Your task to perform on an android device: Clear all items from cart on newegg.com. Add razer nari to the cart on newegg.com, then select checkout. Image 0: 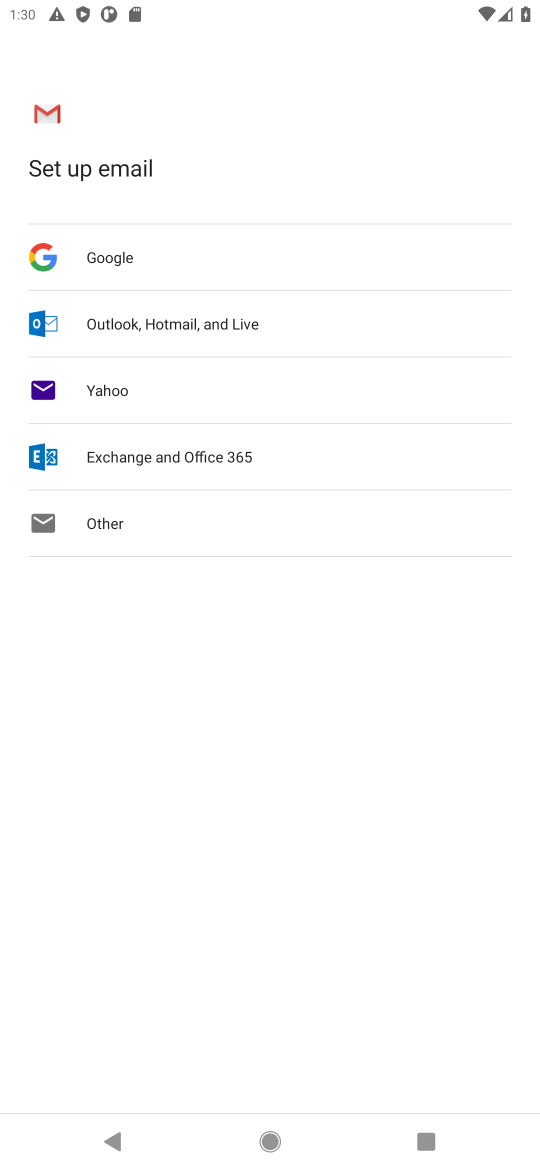
Step 0: press home button
Your task to perform on an android device: Clear all items from cart on newegg.com. Add razer nari to the cart on newegg.com, then select checkout. Image 1: 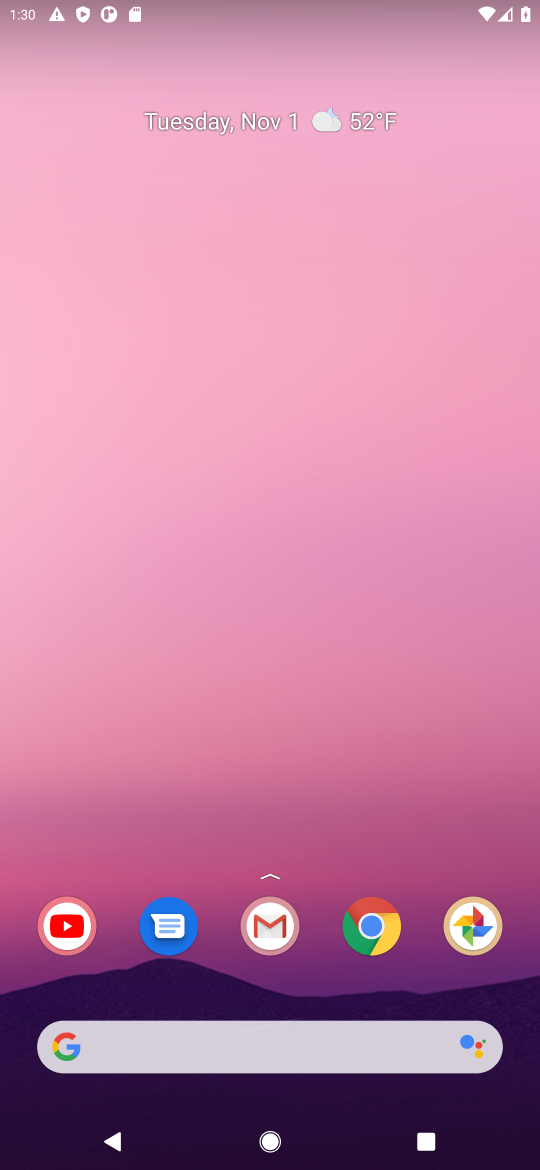
Step 1: click (378, 930)
Your task to perform on an android device: Clear all items from cart on newegg.com. Add razer nari to the cart on newegg.com, then select checkout. Image 2: 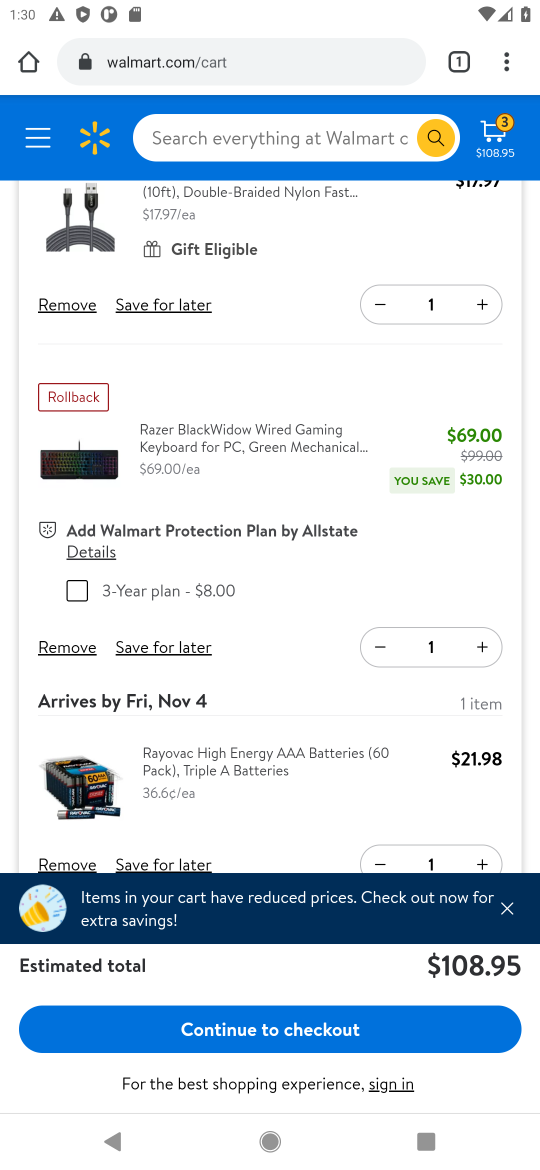
Step 2: click (141, 65)
Your task to perform on an android device: Clear all items from cart on newegg.com. Add razer nari to the cart on newegg.com, then select checkout. Image 3: 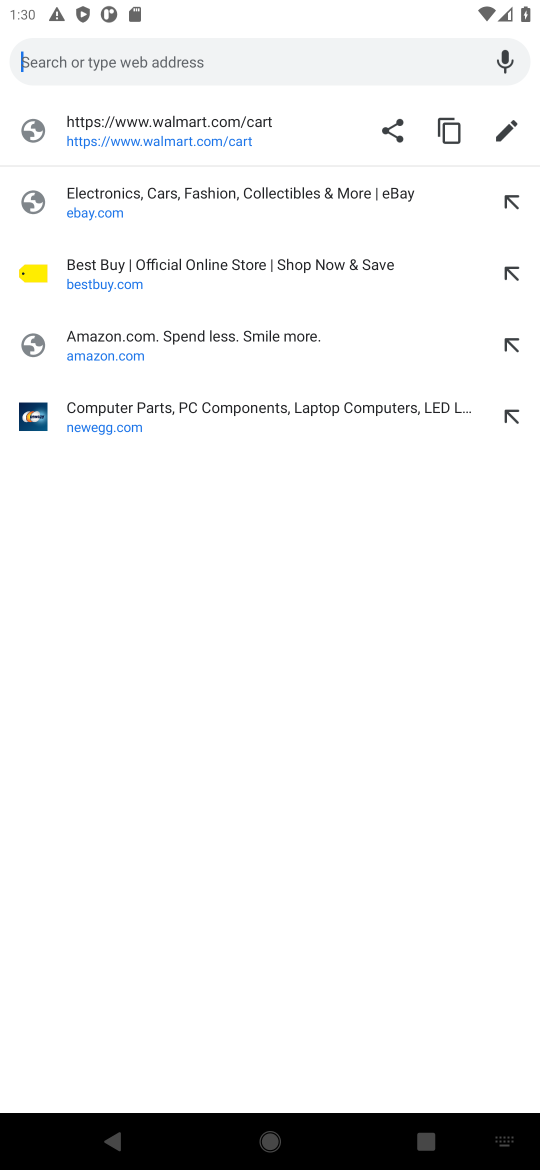
Step 3: type "newegg.com"
Your task to perform on an android device: Clear all items from cart on newegg.com. Add razer nari to the cart on newegg.com, then select checkout. Image 4: 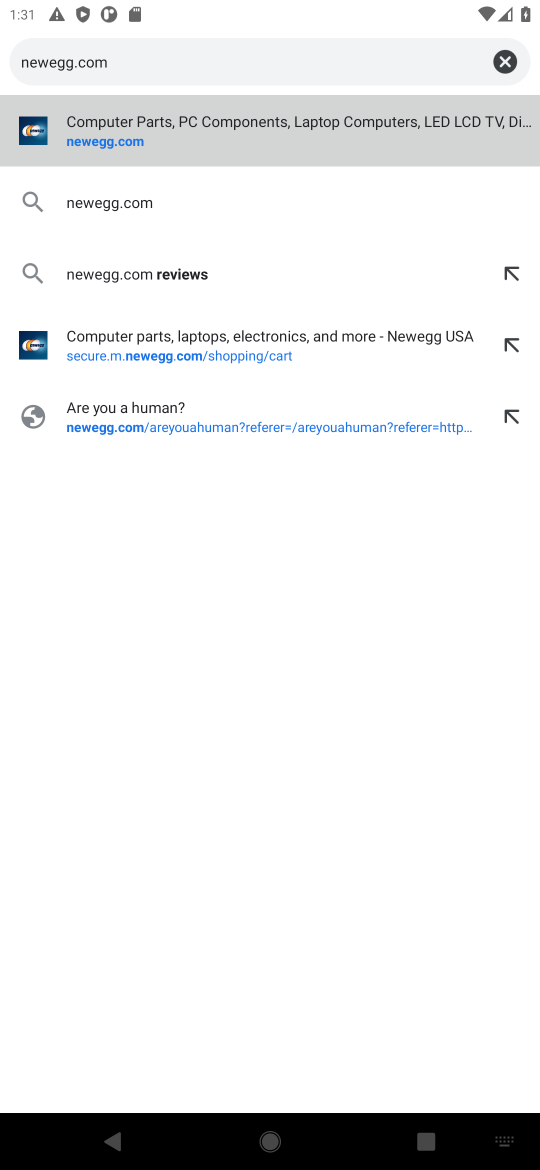
Step 4: click (212, 143)
Your task to perform on an android device: Clear all items from cart on newegg.com. Add razer nari to the cart on newegg.com, then select checkout. Image 5: 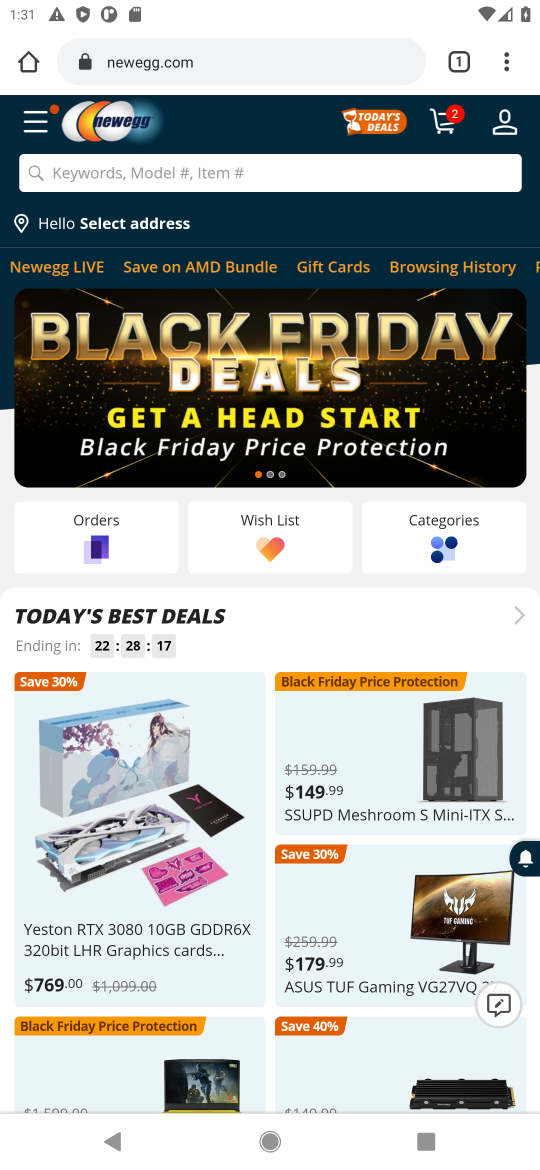
Step 5: click (456, 126)
Your task to perform on an android device: Clear all items from cart on newegg.com. Add razer nari to the cart on newegg.com, then select checkout. Image 6: 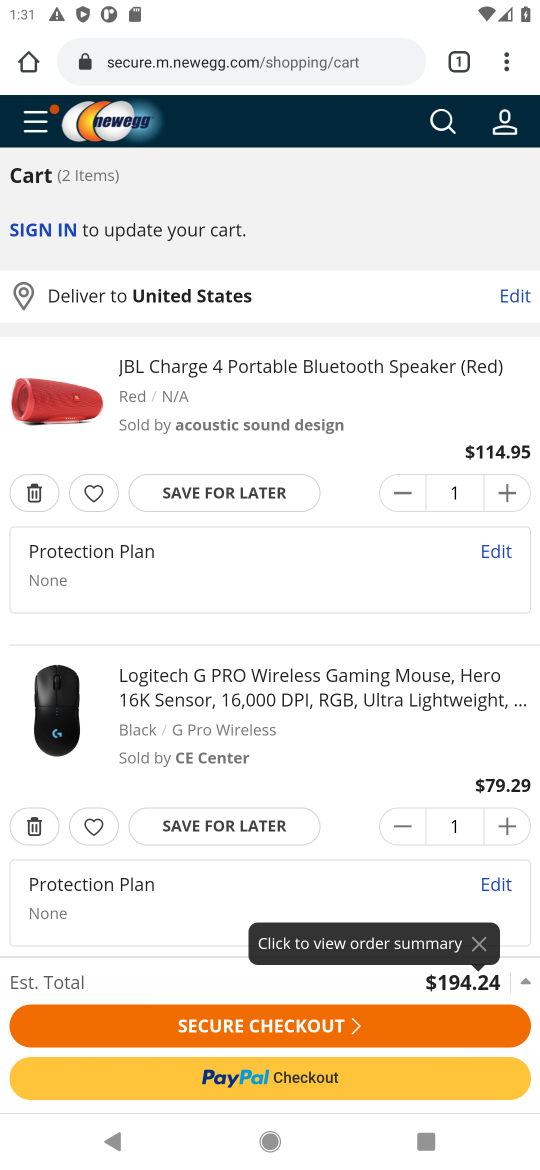
Step 6: click (410, 497)
Your task to perform on an android device: Clear all items from cart on newegg.com. Add razer nari to the cart on newegg.com, then select checkout. Image 7: 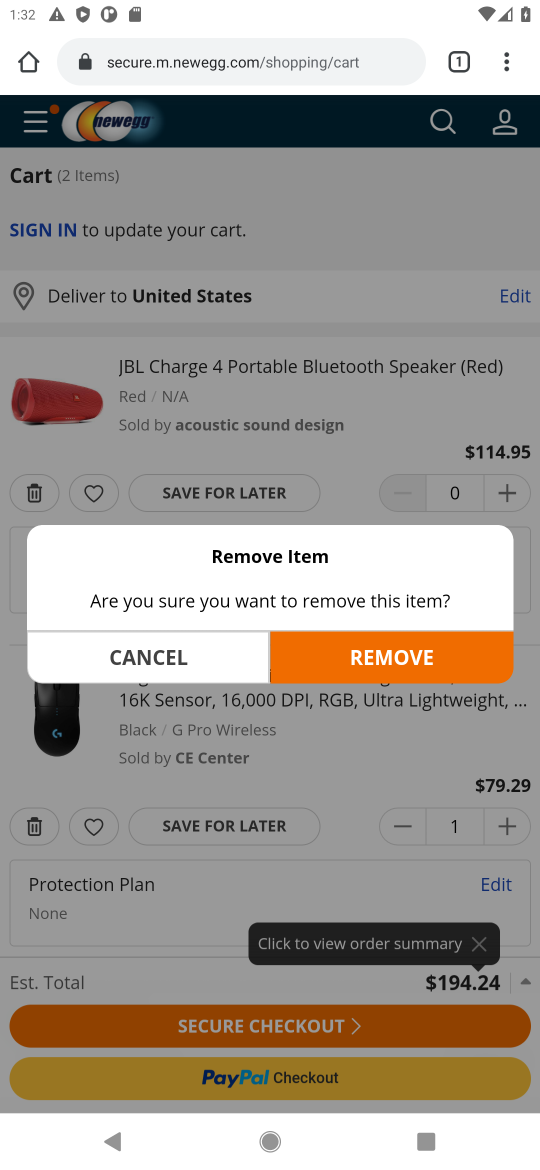
Step 7: click (400, 677)
Your task to perform on an android device: Clear all items from cart on newegg.com. Add razer nari to the cart on newegg.com, then select checkout. Image 8: 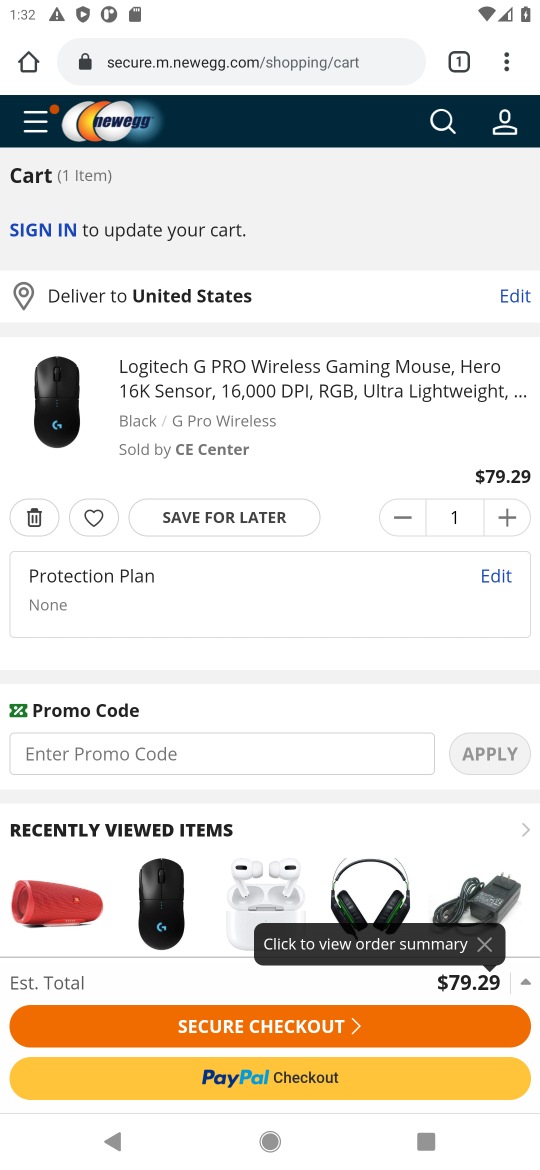
Step 8: click (392, 521)
Your task to perform on an android device: Clear all items from cart on newegg.com. Add razer nari to the cart on newegg.com, then select checkout. Image 9: 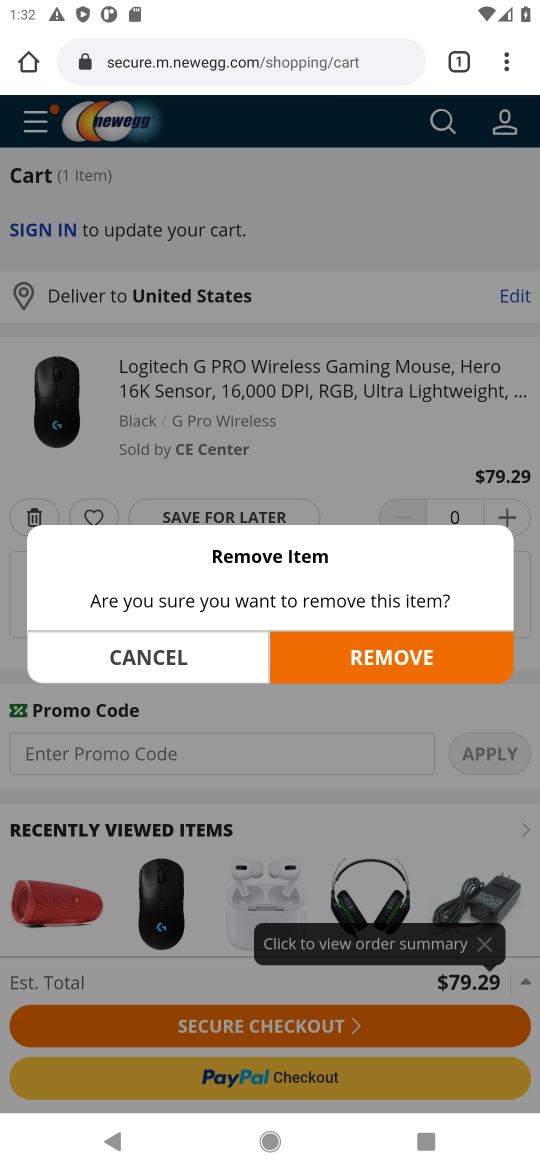
Step 9: click (430, 665)
Your task to perform on an android device: Clear all items from cart on newegg.com. Add razer nari to the cart on newegg.com, then select checkout. Image 10: 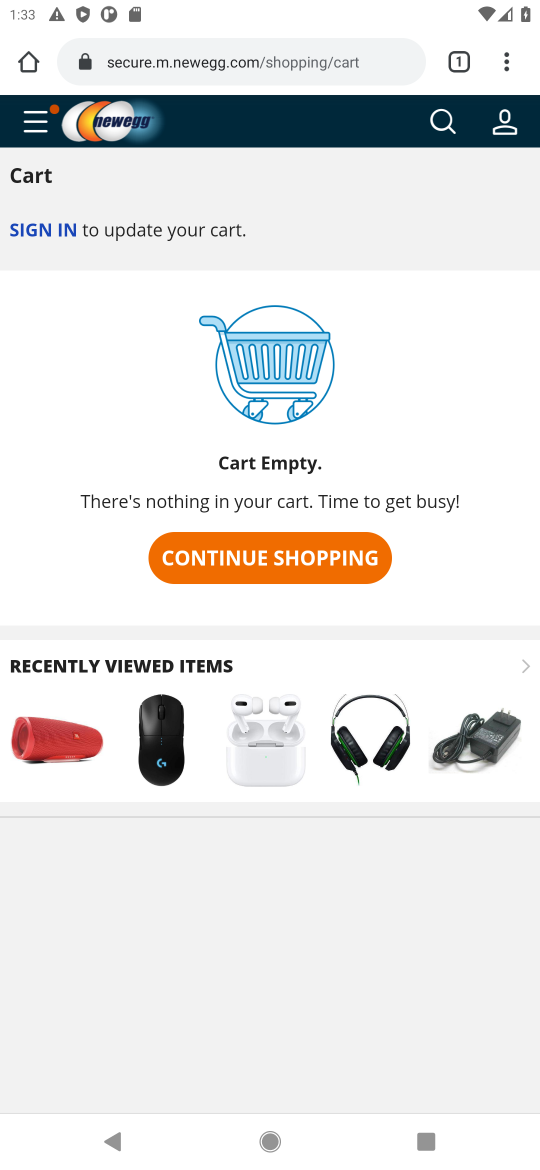
Step 10: click (435, 127)
Your task to perform on an android device: Clear all items from cart on newegg.com. Add razer nari to the cart on newegg.com, then select checkout. Image 11: 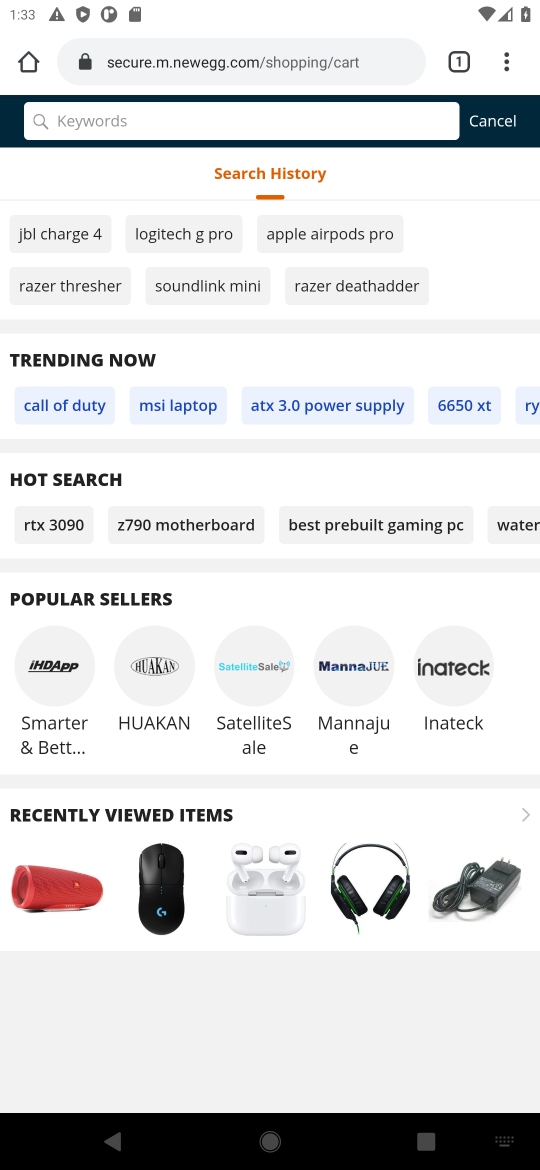
Step 11: type "razer nari"
Your task to perform on an android device: Clear all items from cart on newegg.com. Add razer nari to the cart on newegg.com, then select checkout. Image 12: 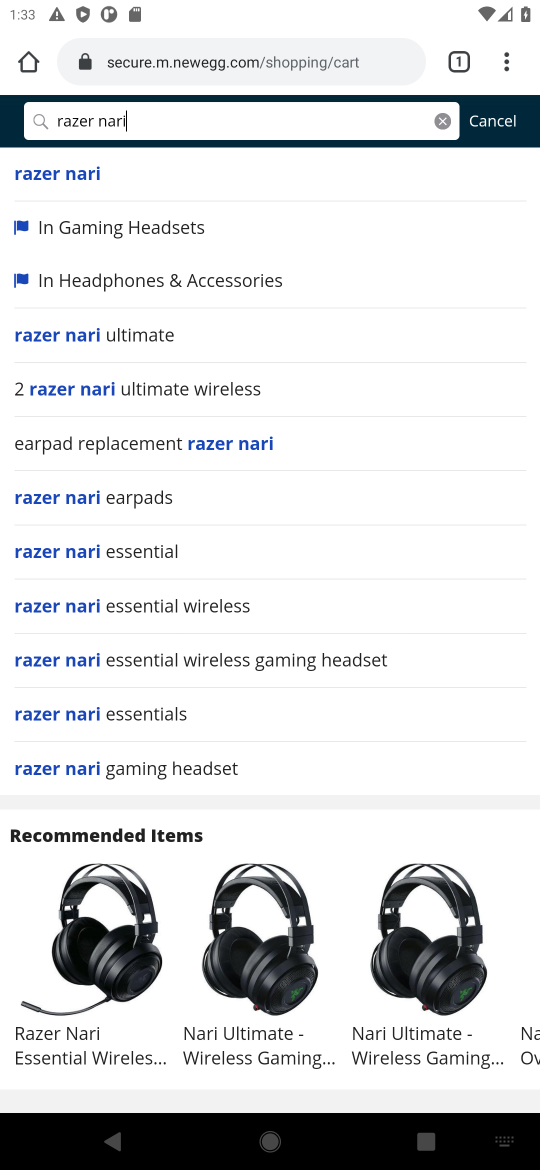
Step 12: press enter
Your task to perform on an android device: Clear all items from cart on newegg.com. Add razer nari to the cart on newegg.com, then select checkout. Image 13: 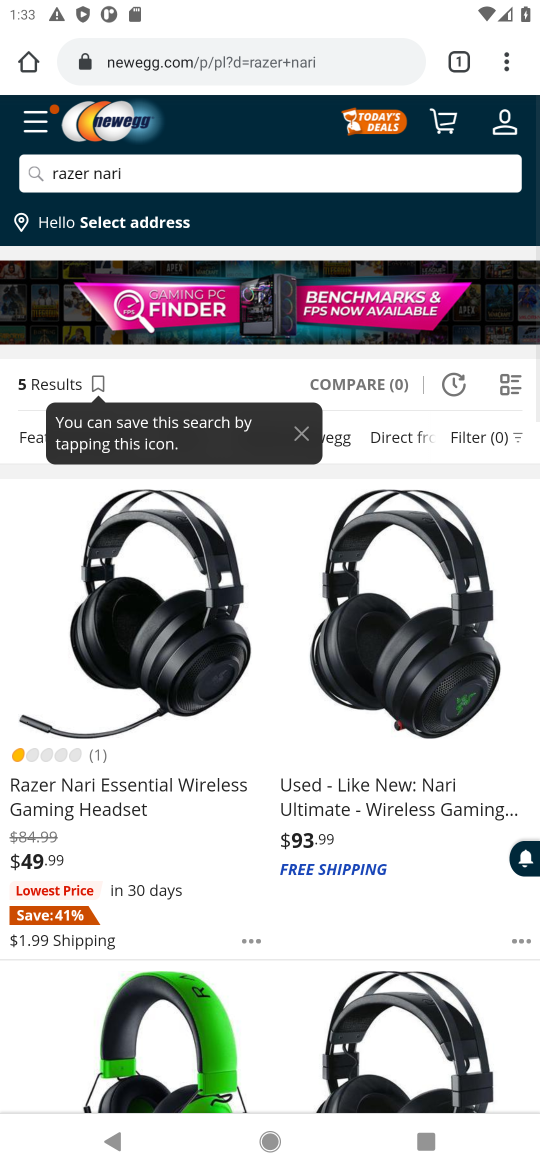
Step 13: click (145, 606)
Your task to perform on an android device: Clear all items from cart on newegg.com. Add razer nari to the cart on newegg.com, then select checkout. Image 14: 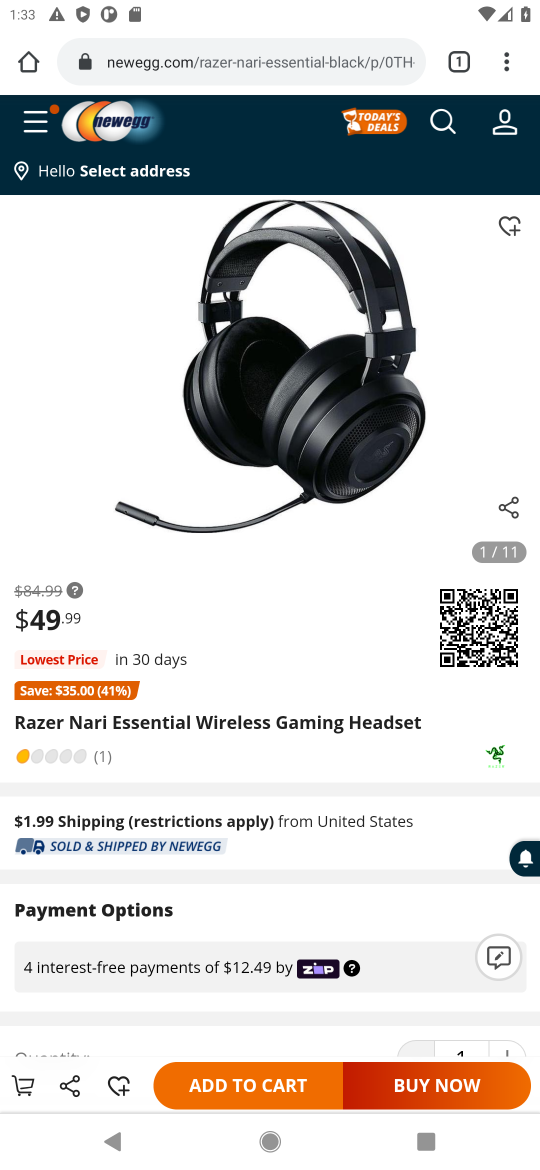
Step 14: click (222, 1082)
Your task to perform on an android device: Clear all items from cart on newegg.com. Add razer nari to the cart on newegg.com, then select checkout. Image 15: 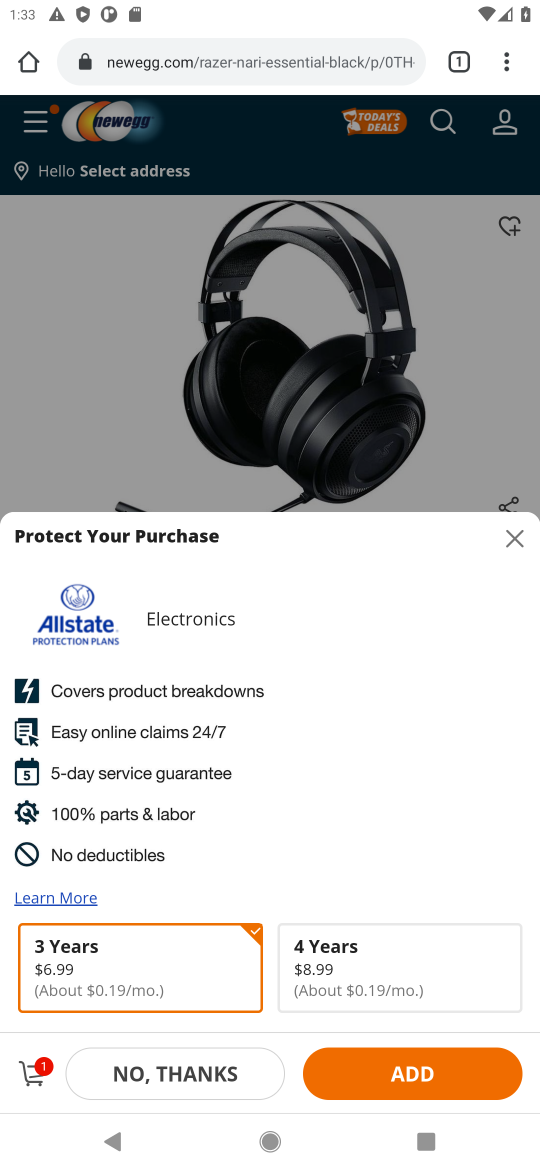
Step 15: click (35, 1078)
Your task to perform on an android device: Clear all items from cart on newegg.com. Add razer nari to the cart on newegg.com, then select checkout. Image 16: 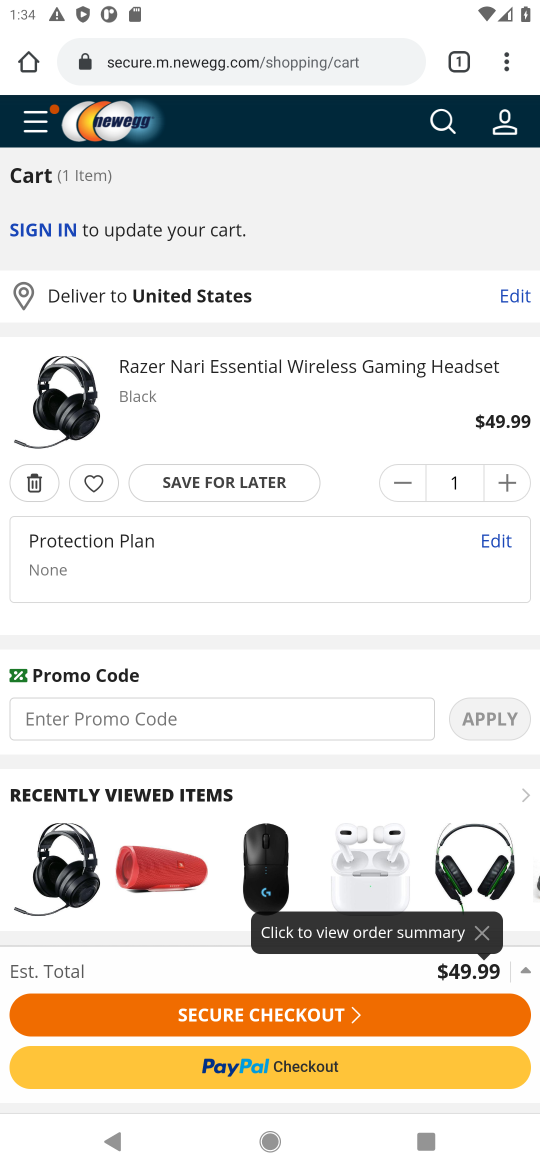
Step 16: click (233, 1012)
Your task to perform on an android device: Clear all items from cart on newegg.com. Add razer nari to the cart on newegg.com, then select checkout. Image 17: 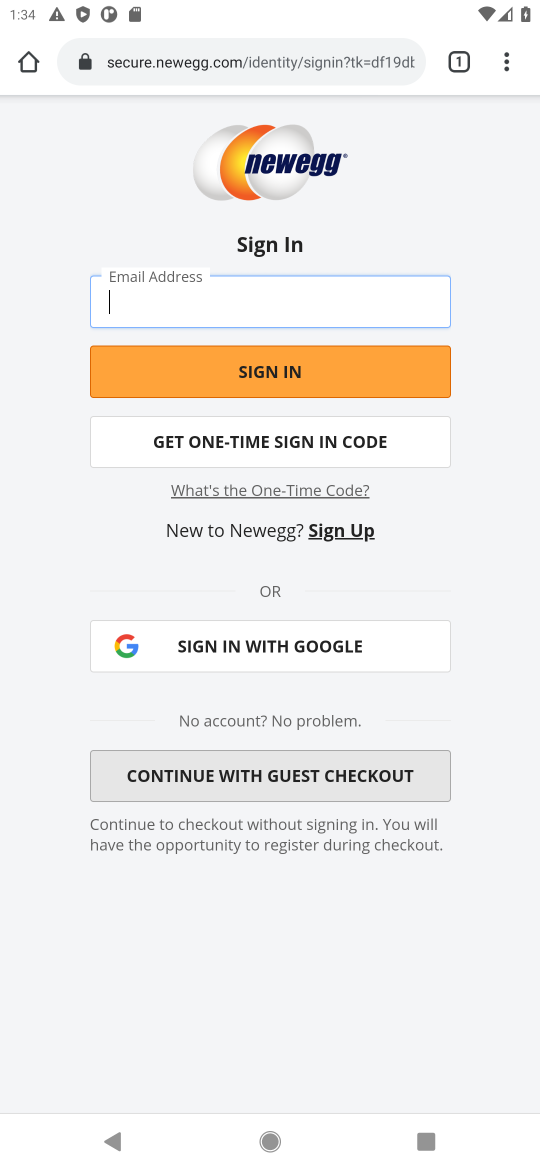
Step 17: task complete